Your task to perform on an android device: Go to CNN.com Image 0: 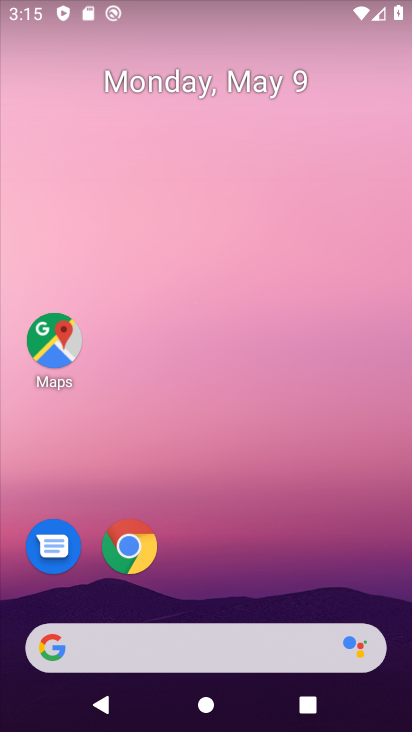
Step 0: click (134, 552)
Your task to perform on an android device: Go to CNN.com Image 1: 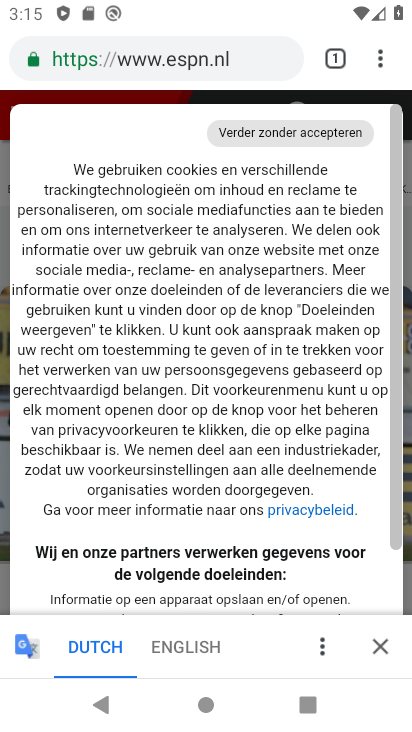
Step 1: click (212, 47)
Your task to perform on an android device: Go to CNN.com Image 2: 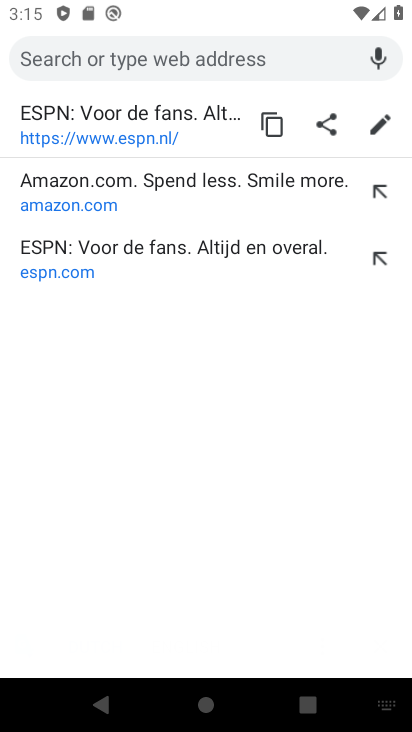
Step 2: type "cnn"
Your task to perform on an android device: Go to CNN.com Image 3: 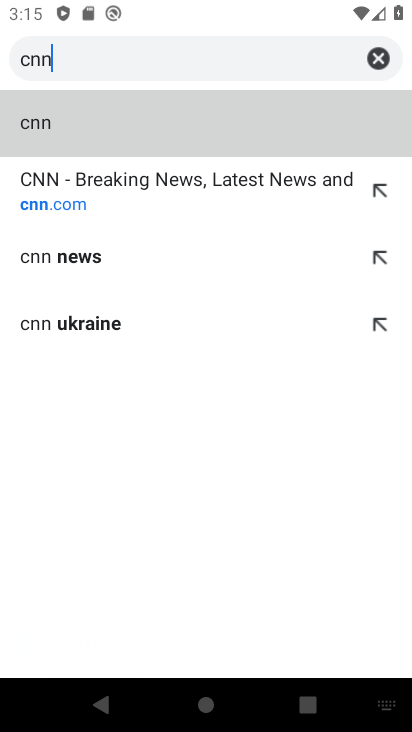
Step 3: click (73, 188)
Your task to perform on an android device: Go to CNN.com Image 4: 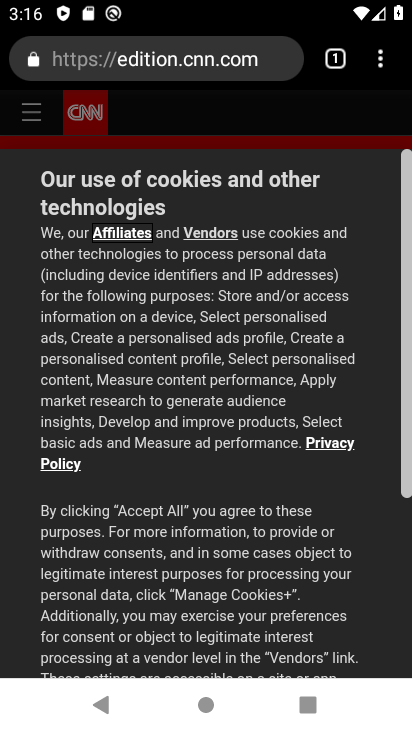
Step 4: task complete